Your task to perform on an android device: visit the assistant section in the google photos Image 0: 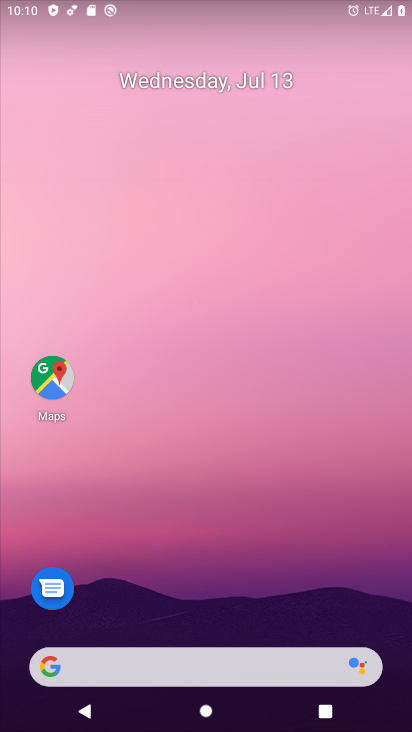
Step 0: drag from (255, 557) to (289, 136)
Your task to perform on an android device: visit the assistant section in the google photos Image 1: 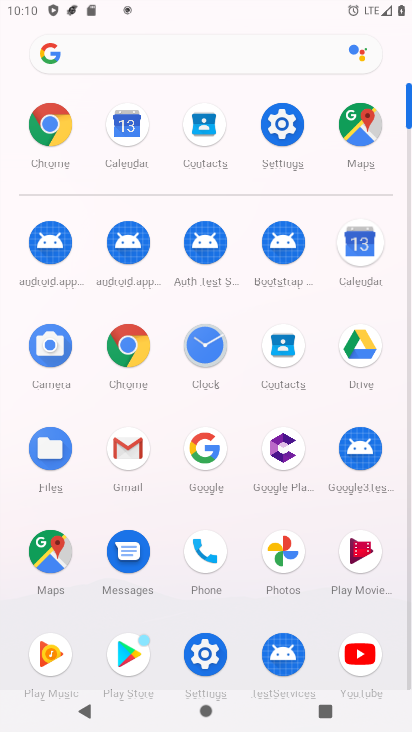
Step 1: click (281, 548)
Your task to perform on an android device: visit the assistant section in the google photos Image 2: 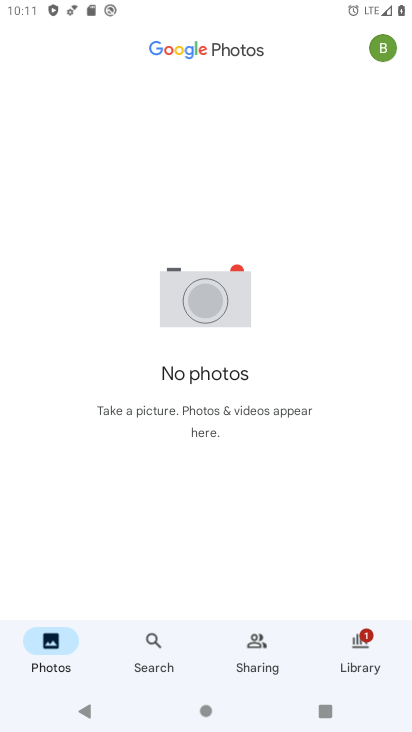
Step 2: click (267, 651)
Your task to perform on an android device: visit the assistant section in the google photos Image 3: 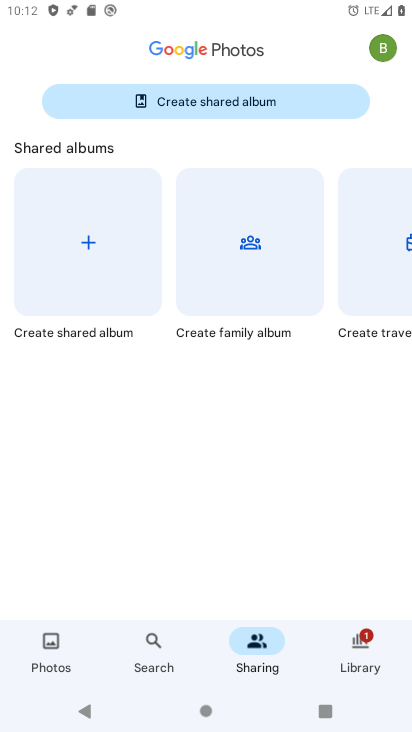
Step 3: task complete